Your task to perform on an android device: turn off location history Image 0: 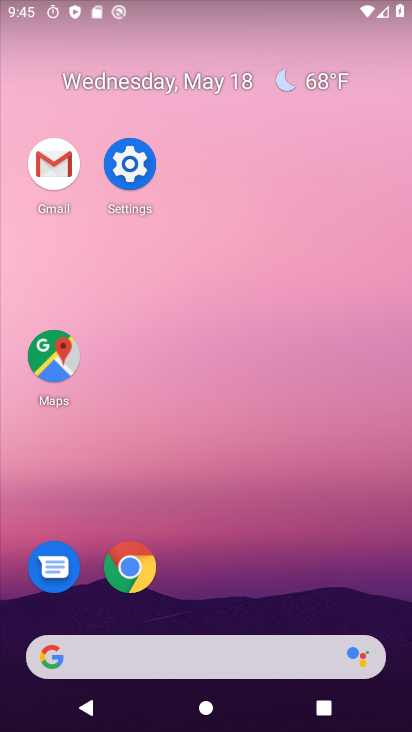
Step 0: click (133, 178)
Your task to perform on an android device: turn off location history Image 1: 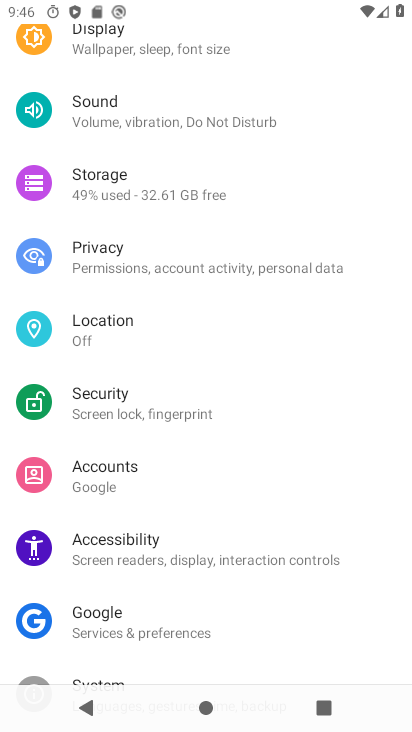
Step 1: click (185, 343)
Your task to perform on an android device: turn off location history Image 2: 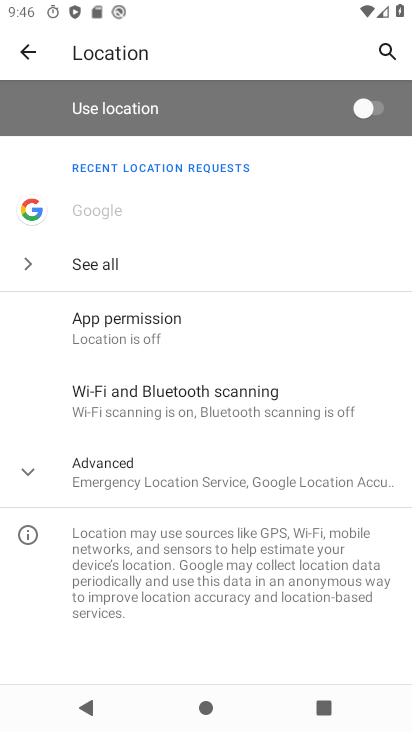
Step 2: click (169, 468)
Your task to perform on an android device: turn off location history Image 3: 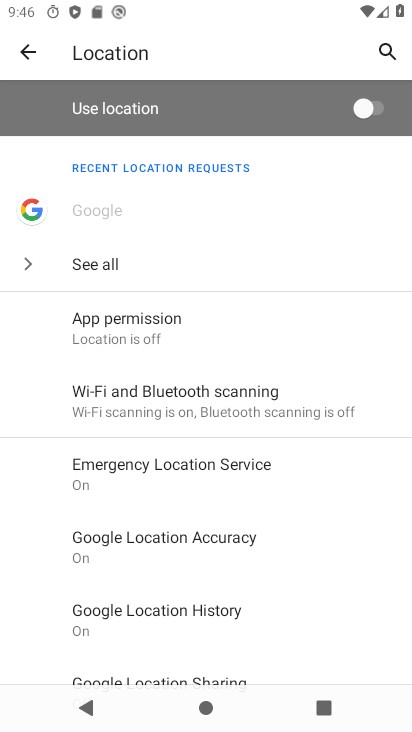
Step 3: click (164, 607)
Your task to perform on an android device: turn off location history Image 4: 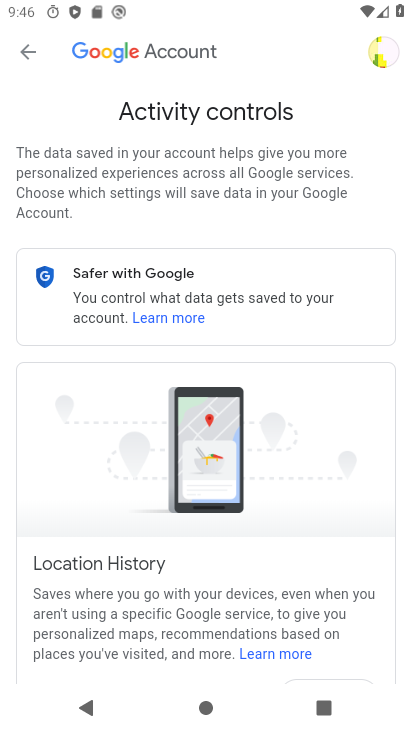
Step 4: drag from (212, 579) to (227, 161)
Your task to perform on an android device: turn off location history Image 5: 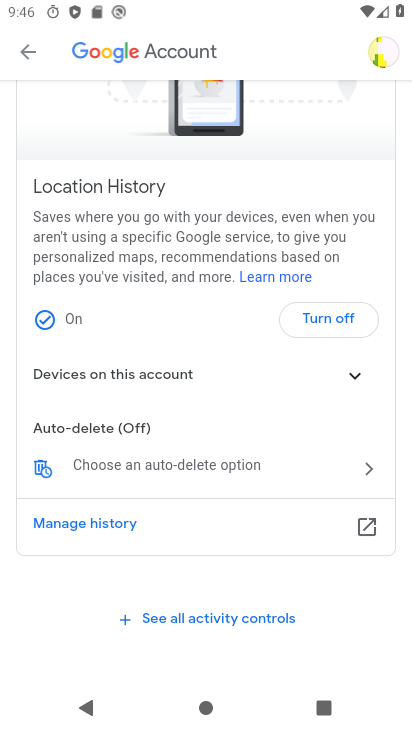
Step 5: click (319, 317)
Your task to perform on an android device: turn off location history Image 6: 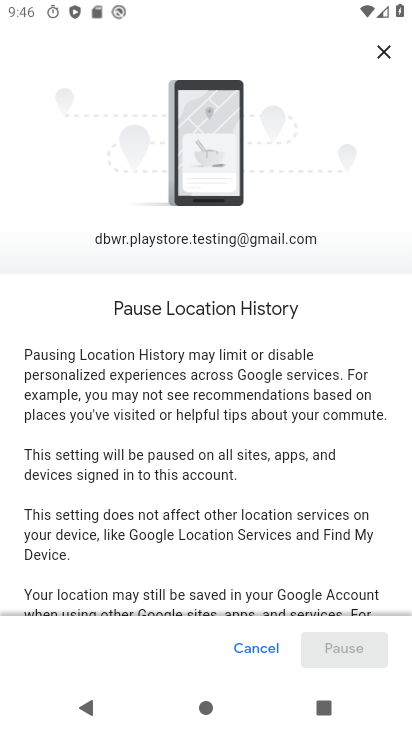
Step 6: drag from (305, 538) to (282, 146)
Your task to perform on an android device: turn off location history Image 7: 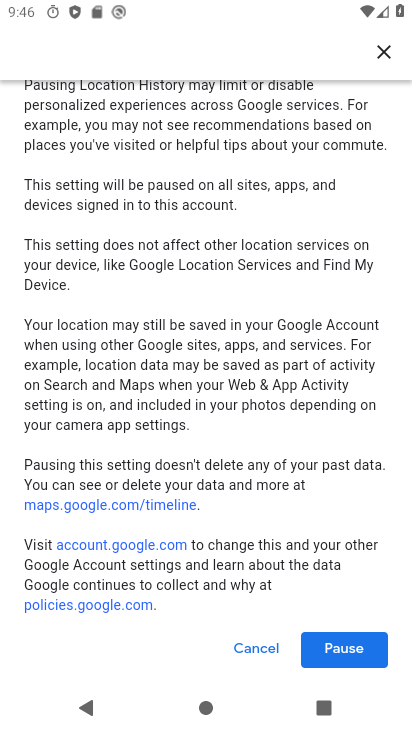
Step 7: click (362, 653)
Your task to perform on an android device: turn off location history Image 8: 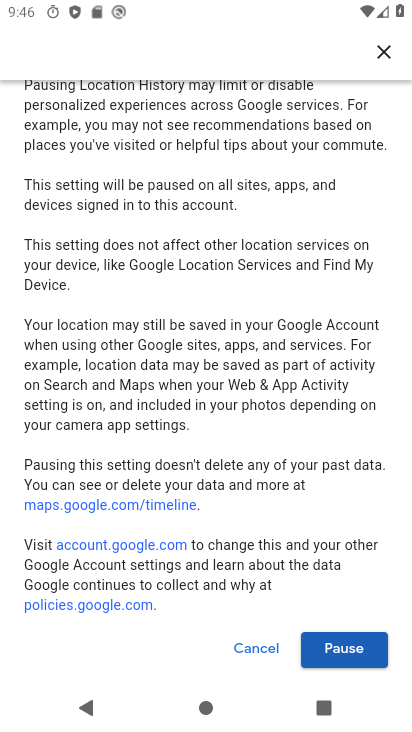
Step 8: click (334, 650)
Your task to perform on an android device: turn off location history Image 9: 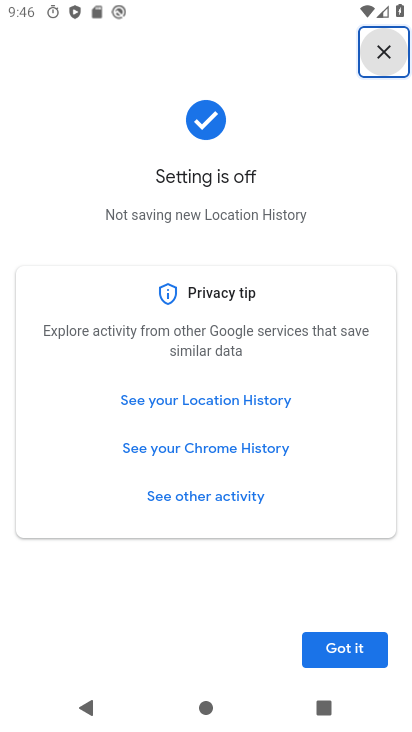
Step 9: click (357, 652)
Your task to perform on an android device: turn off location history Image 10: 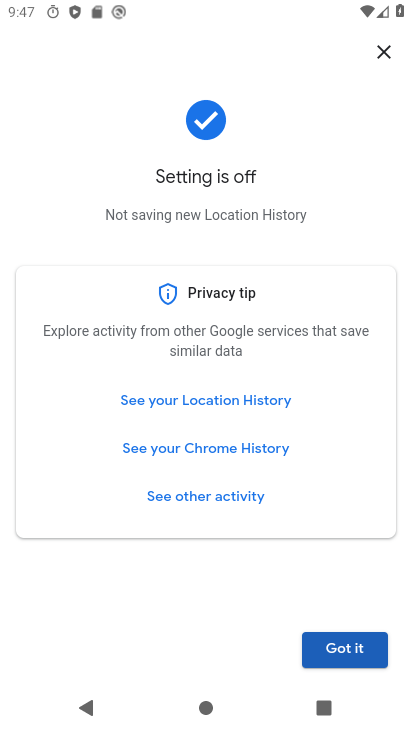
Step 10: click (357, 652)
Your task to perform on an android device: turn off location history Image 11: 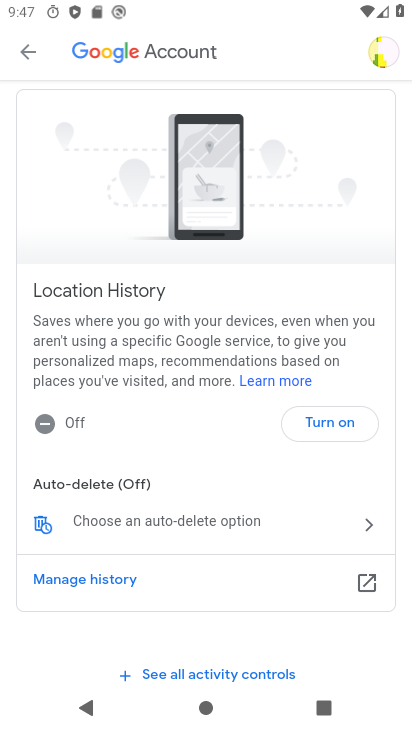
Step 11: task complete